Your task to perform on an android device: turn on translation in the chrome app Image 0: 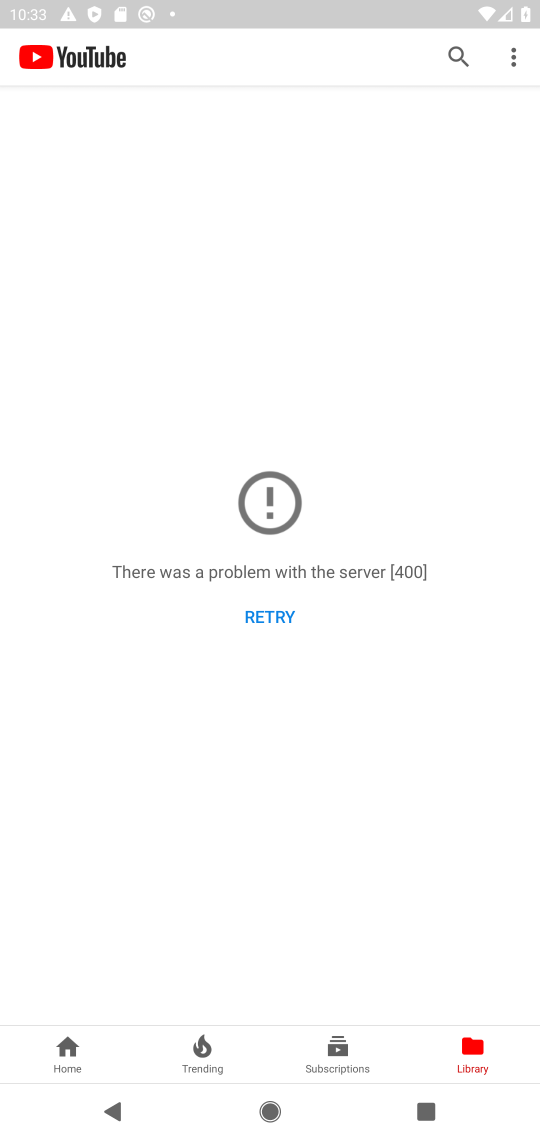
Step 0: press home button
Your task to perform on an android device: turn on translation in the chrome app Image 1: 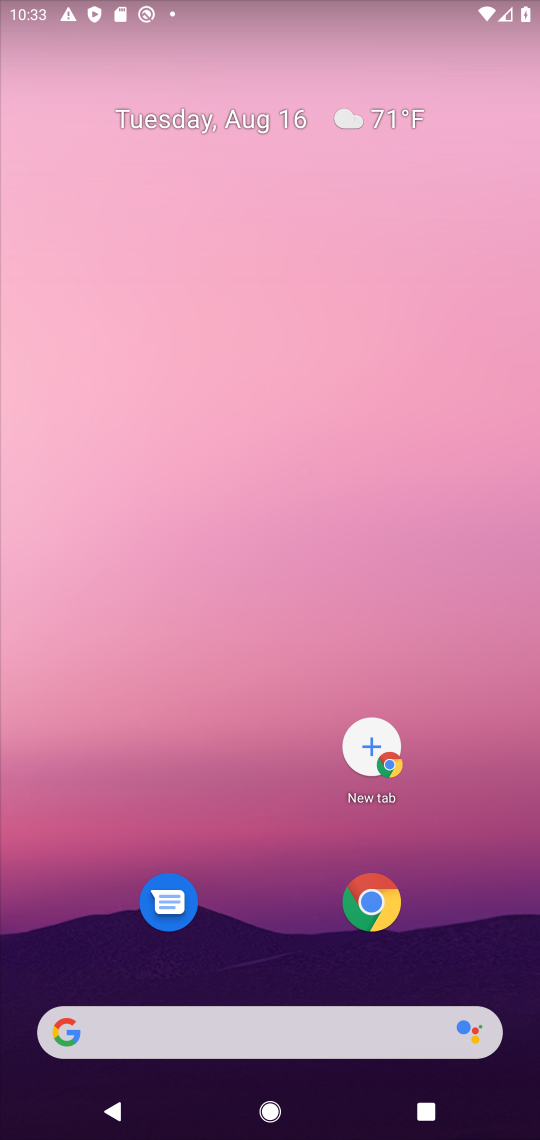
Step 1: click (398, 883)
Your task to perform on an android device: turn on translation in the chrome app Image 2: 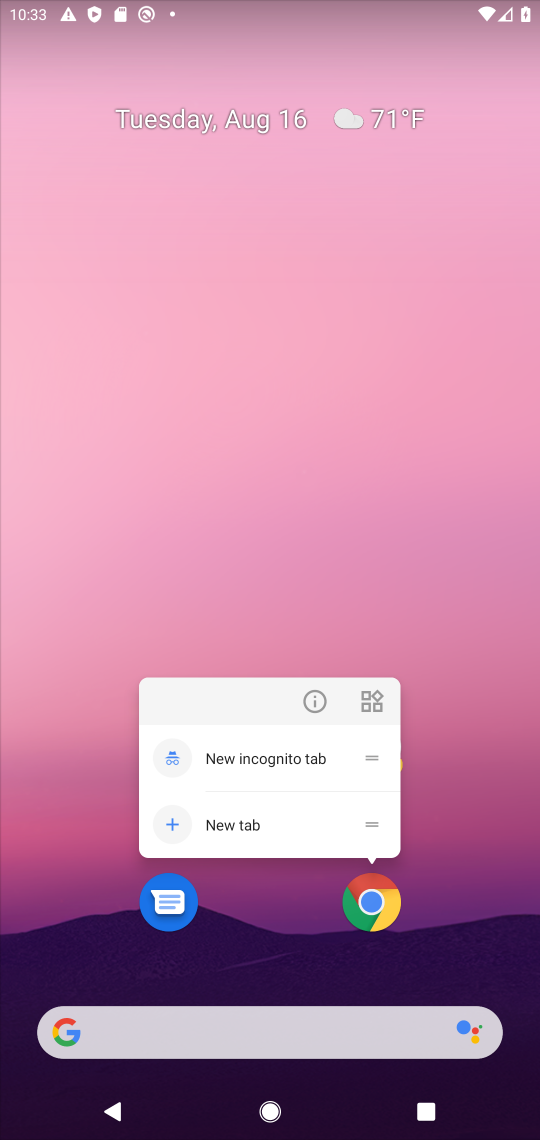
Step 2: click (379, 905)
Your task to perform on an android device: turn on translation in the chrome app Image 3: 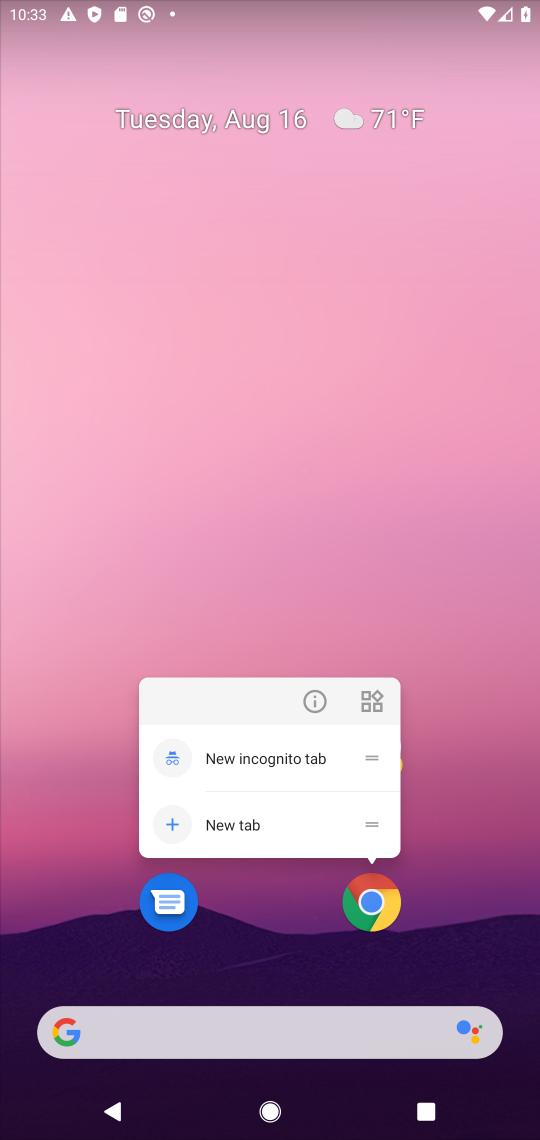
Step 3: click (378, 905)
Your task to perform on an android device: turn on translation in the chrome app Image 4: 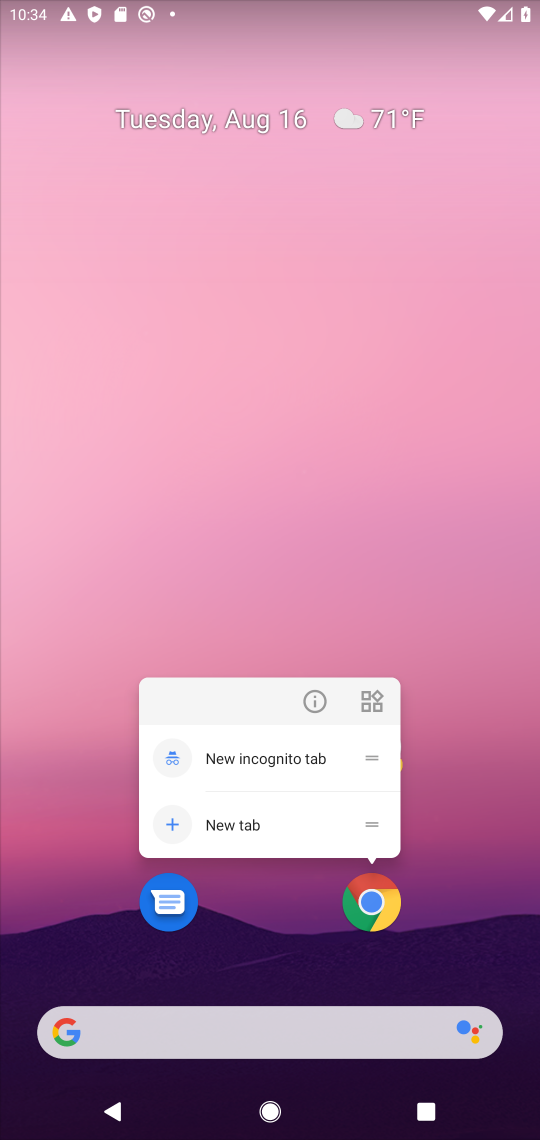
Step 4: click (358, 921)
Your task to perform on an android device: turn on translation in the chrome app Image 5: 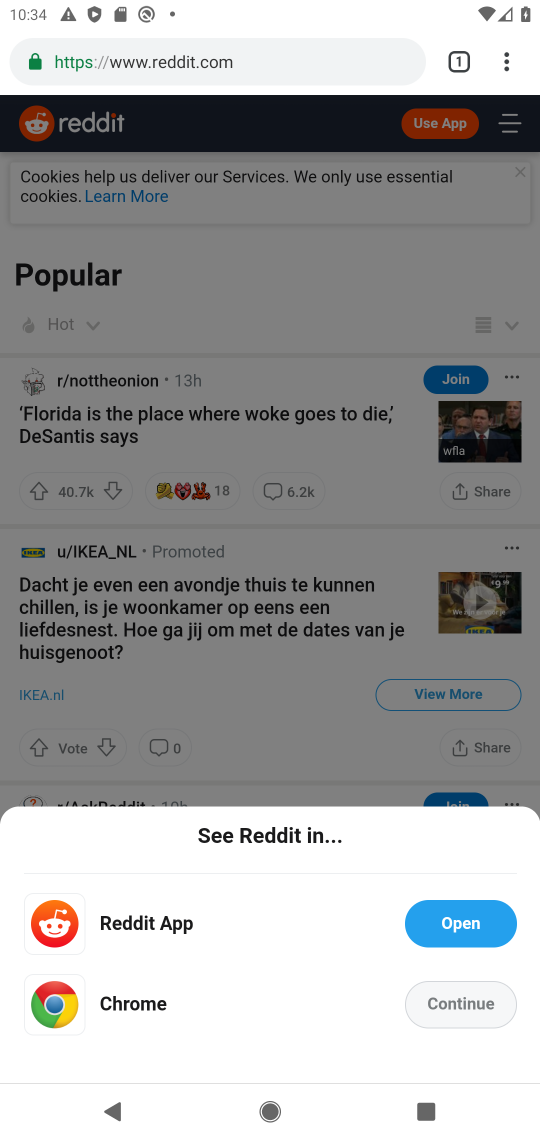
Step 5: click (502, 58)
Your task to perform on an android device: turn on translation in the chrome app Image 6: 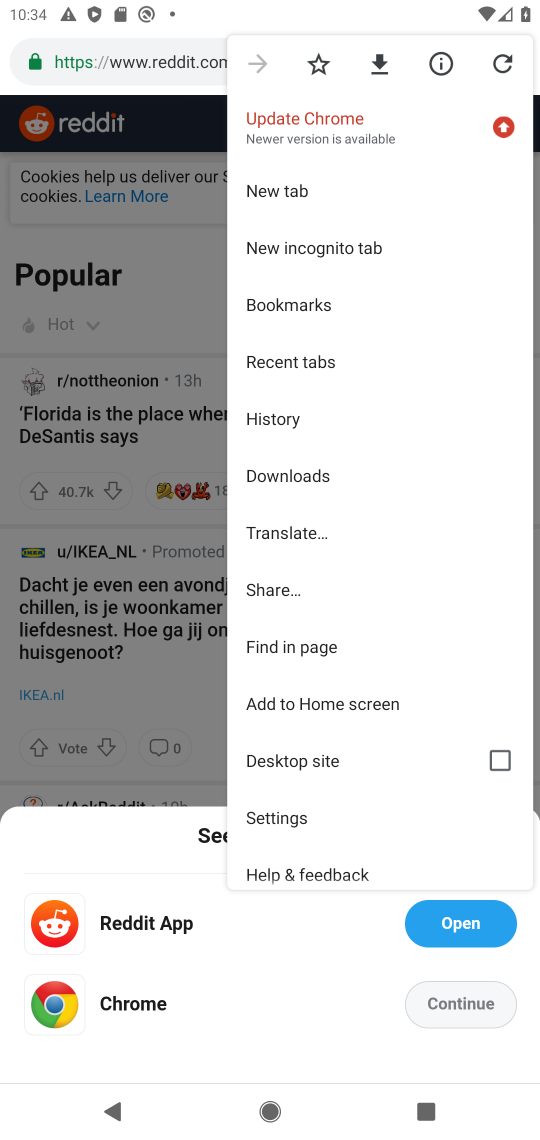
Step 6: click (287, 817)
Your task to perform on an android device: turn on translation in the chrome app Image 7: 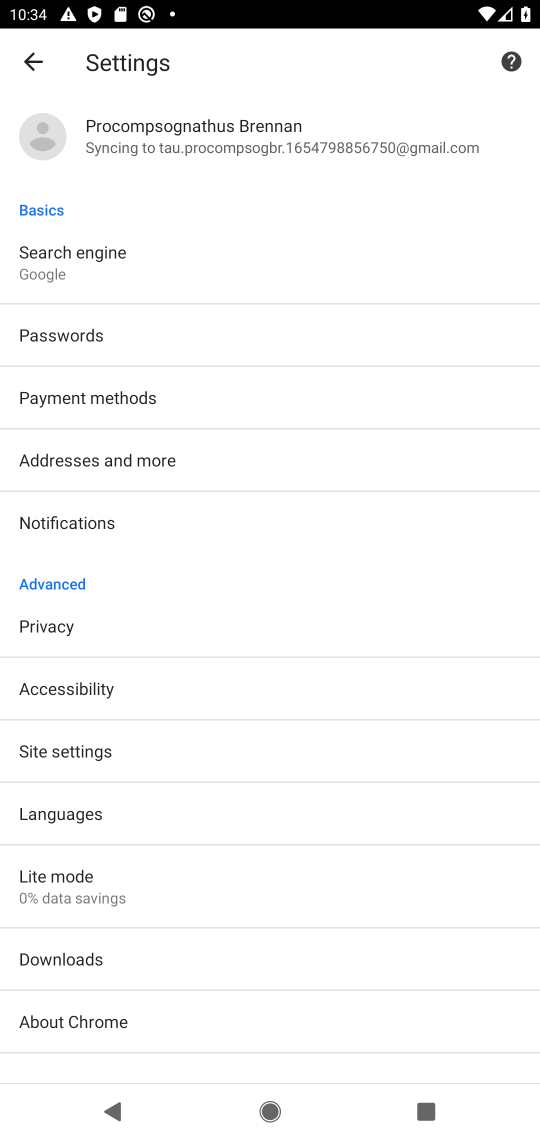
Step 7: click (86, 824)
Your task to perform on an android device: turn on translation in the chrome app Image 8: 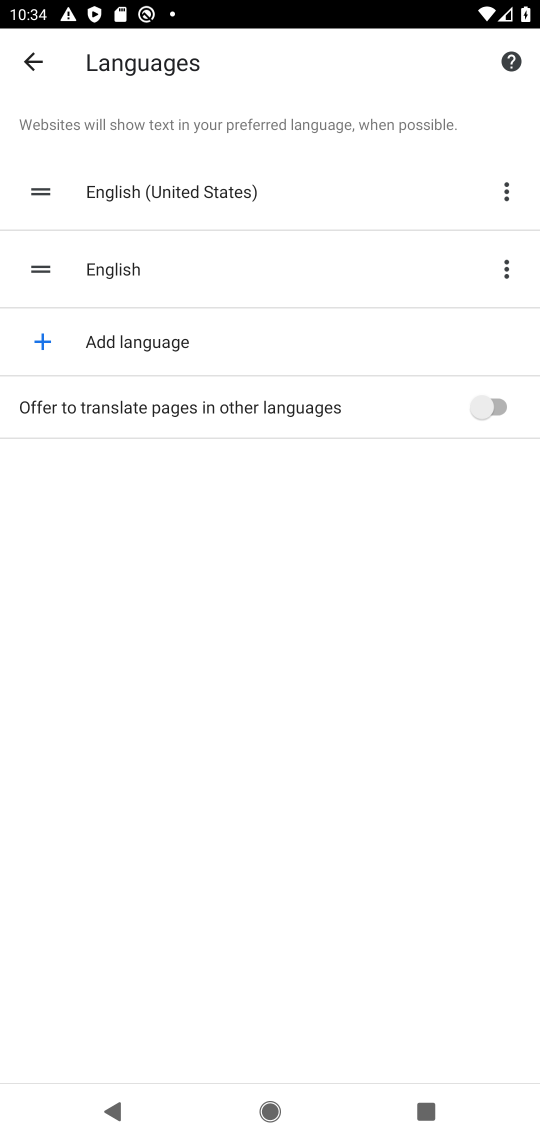
Step 8: click (499, 412)
Your task to perform on an android device: turn on translation in the chrome app Image 9: 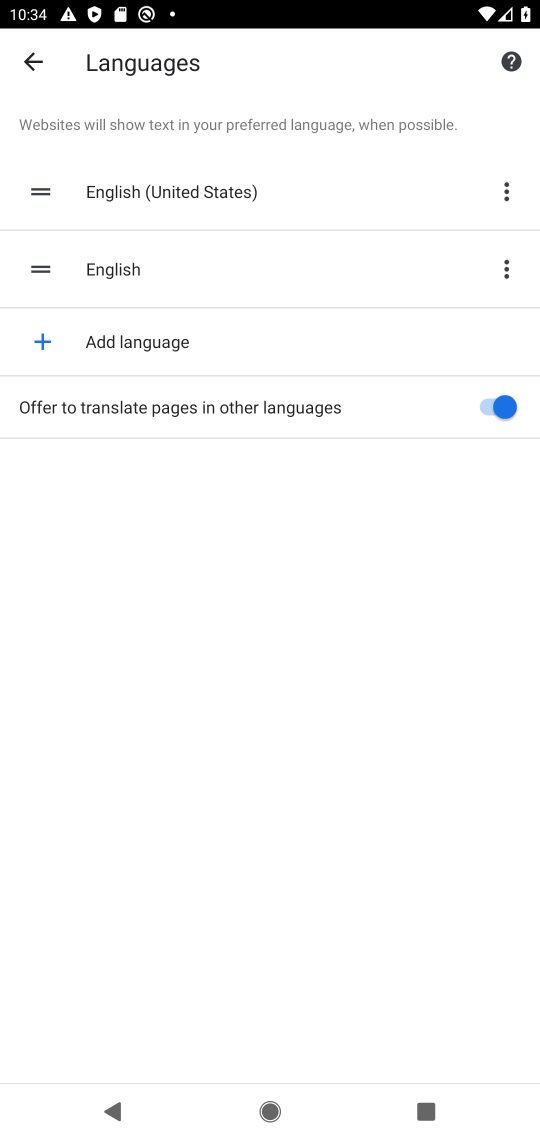
Step 9: task complete